Your task to perform on an android device: turn on javascript in the chrome app Image 0: 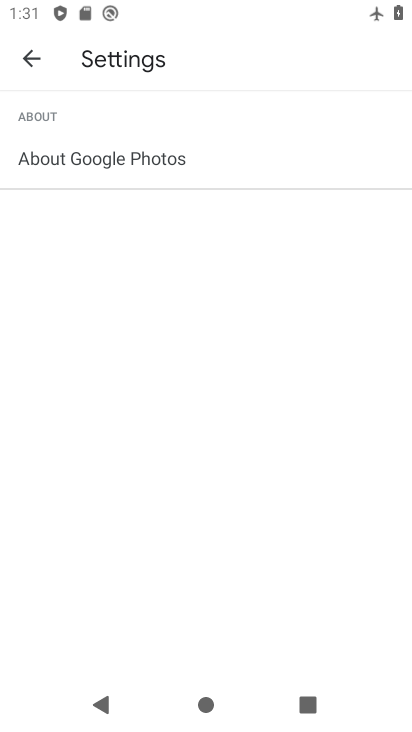
Step 0: press home button
Your task to perform on an android device: turn on javascript in the chrome app Image 1: 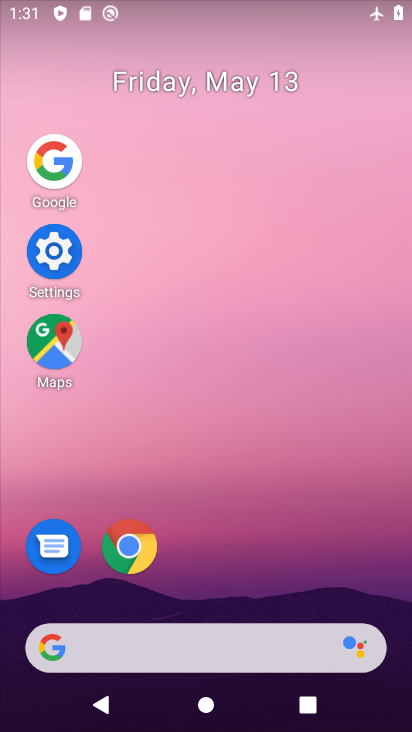
Step 1: click (66, 253)
Your task to perform on an android device: turn on javascript in the chrome app Image 2: 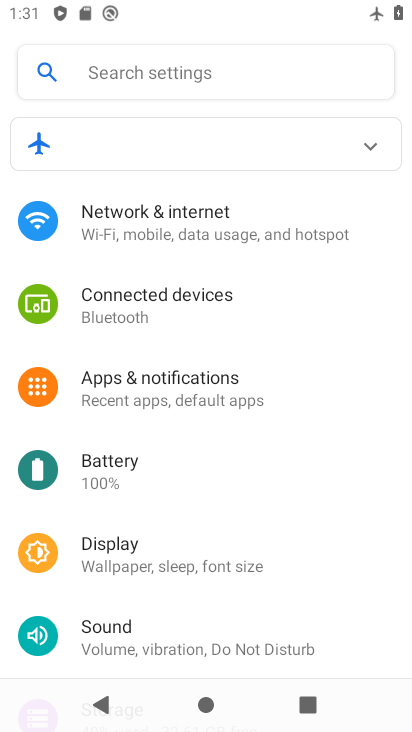
Step 2: click (274, 233)
Your task to perform on an android device: turn on javascript in the chrome app Image 3: 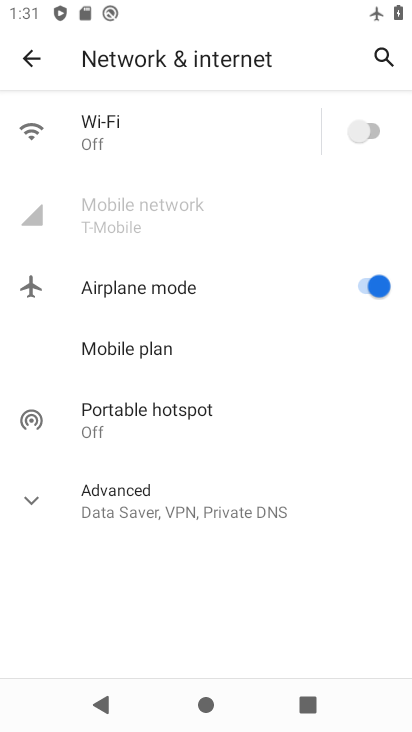
Step 3: click (373, 292)
Your task to perform on an android device: turn on javascript in the chrome app Image 4: 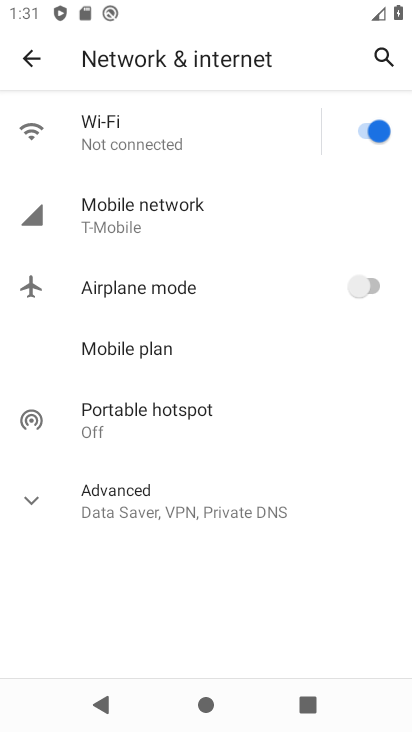
Step 4: click (366, 130)
Your task to perform on an android device: turn on javascript in the chrome app Image 5: 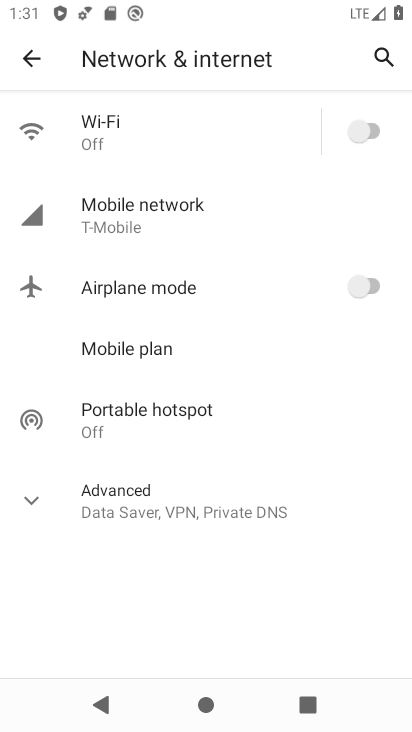
Step 5: click (358, 131)
Your task to perform on an android device: turn on javascript in the chrome app Image 6: 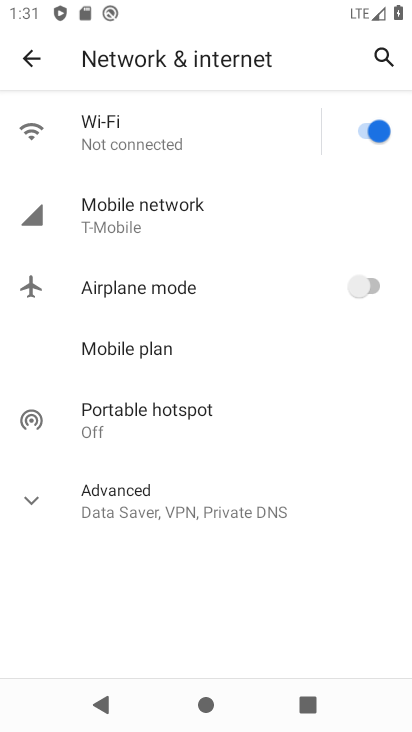
Step 6: press home button
Your task to perform on an android device: turn on javascript in the chrome app Image 7: 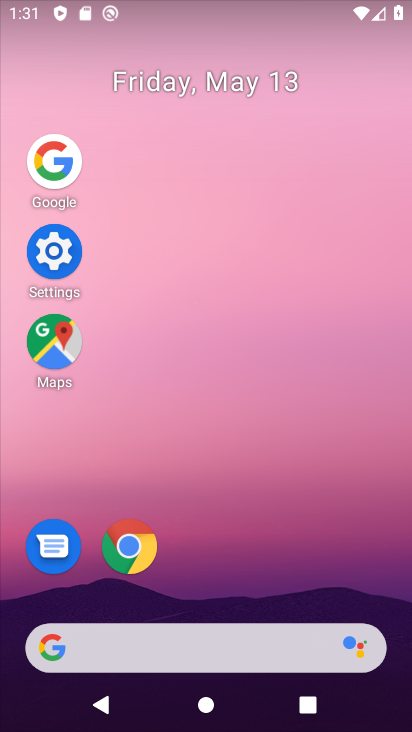
Step 7: click (128, 561)
Your task to perform on an android device: turn on javascript in the chrome app Image 8: 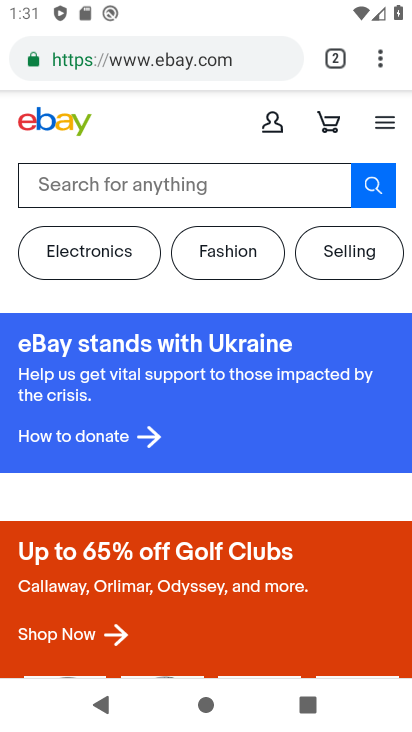
Step 8: click (376, 48)
Your task to perform on an android device: turn on javascript in the chrome app Image 9: 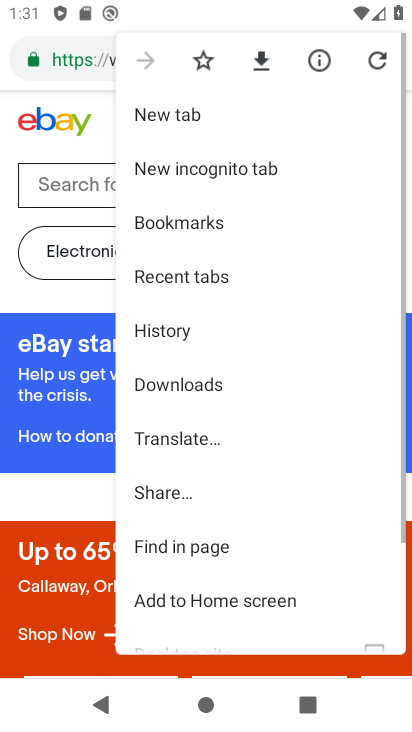
Step 9: drag from (277, 414) to (308, 171)
Your task to perform on an android device: turn on javascript in the chrome app Image 10: 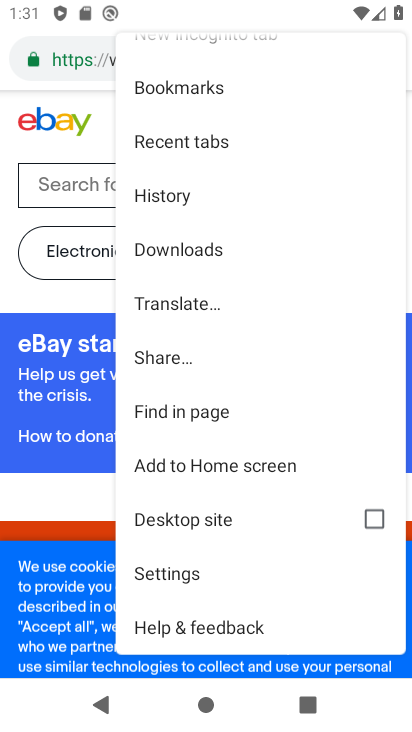
Step 10: click (222, 575)
Your task to perform on an android device: turn on javascript in the chrome app Image 11: 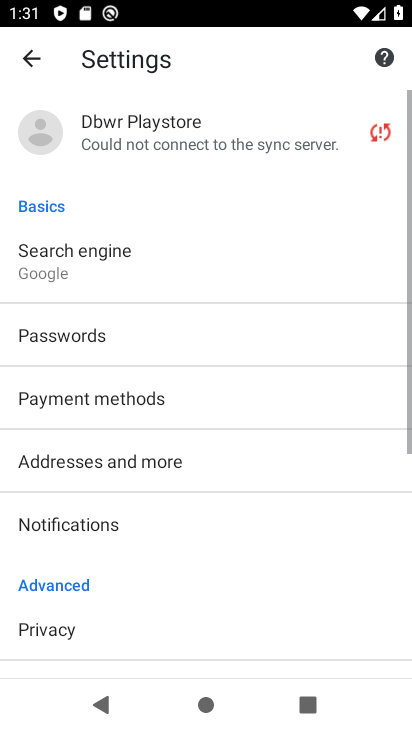
Step 11: drag from (227, 583) to (257, 215)
Your task to perform on an android device: turn on javascript in the chrome app Image 12: 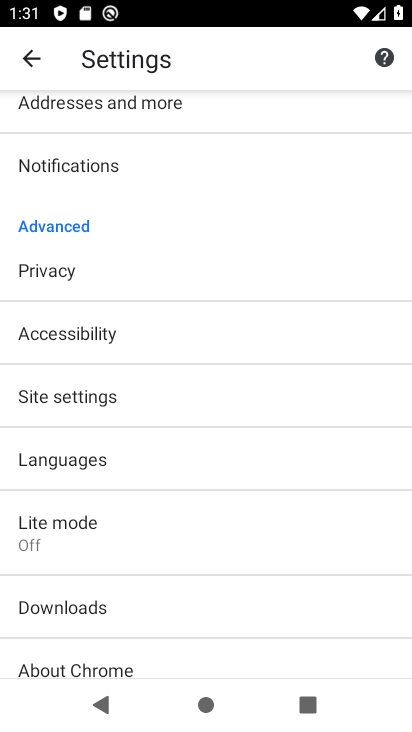
Step 12: click (162, 390)
Your task to perform on an android device: turn on javascript in the chrome app Image 13: 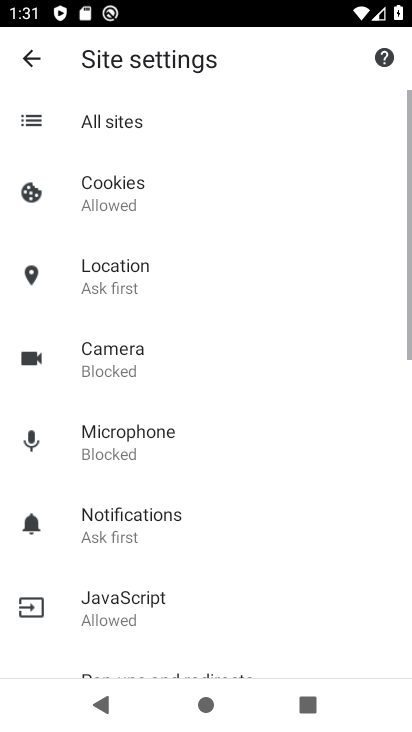
Step 13: drag from (272, 562) to (304, 269)
Your task to perform on an android device: turn on javascript in the chrome app Image 14: 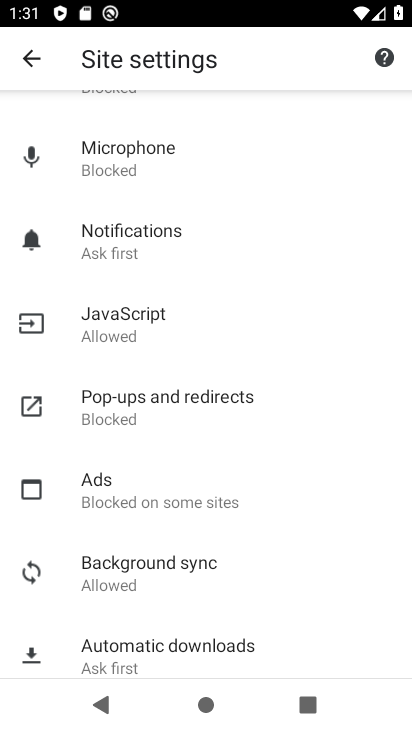
Step 14: click (159, 327)
Your task to perform on an android device: turn on javascript in the chrome app Image 15: 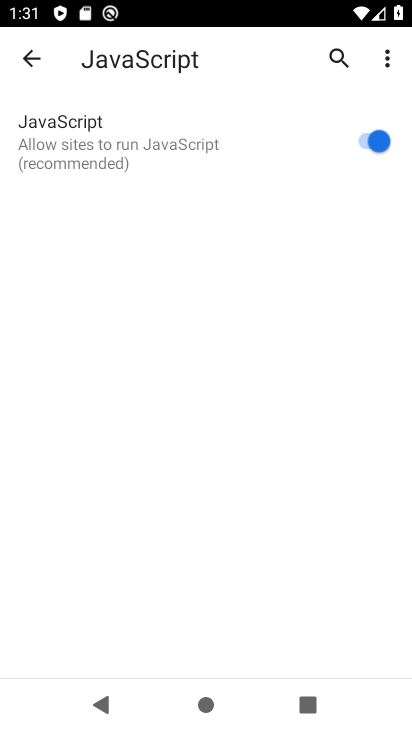
Step 15: task complete